Your task to perform on an android device: stop showing notifications on the lock screen Image 0: 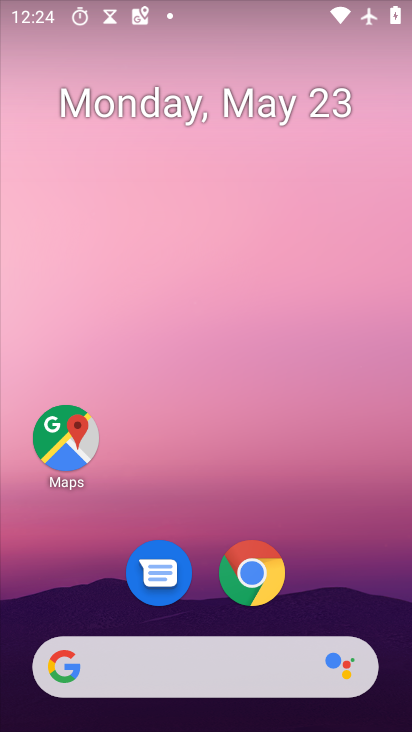
Step 0: press home button
Your task to perform on an android device: stop showing notifications on the lock screen Image 1: 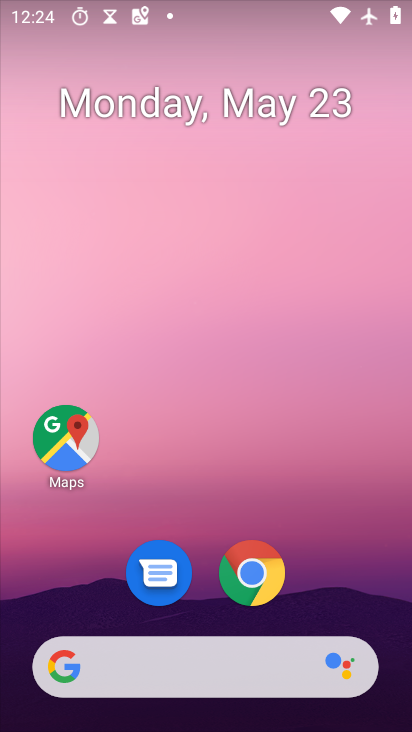
Step 1: drag from (152, 668) to (241, 165)
Your task to perform on an android device: stop showing notifications on the lock screen Image 2: 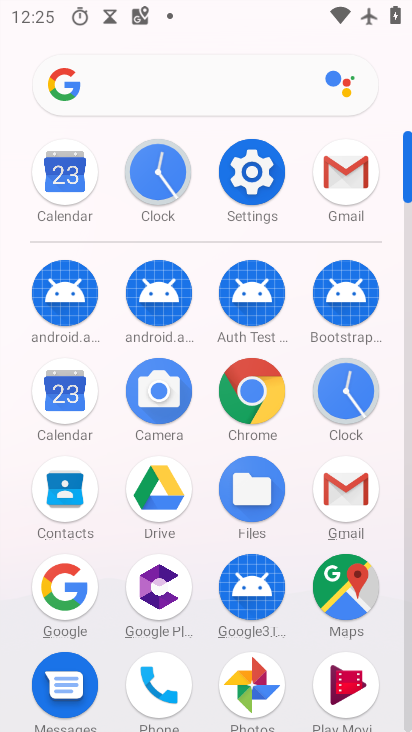
Step 2: click (253, 178)
Your task to perform on an android device: stop showing notifications on the lock screen Image 3: 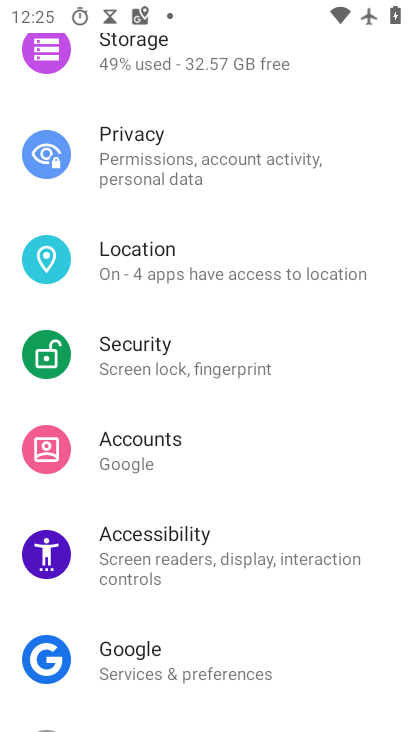
Step 3: drag from (281, 300) to (297, 645)
Your task to perform on an android device: stop showing notifications on the lock screen Image 4: 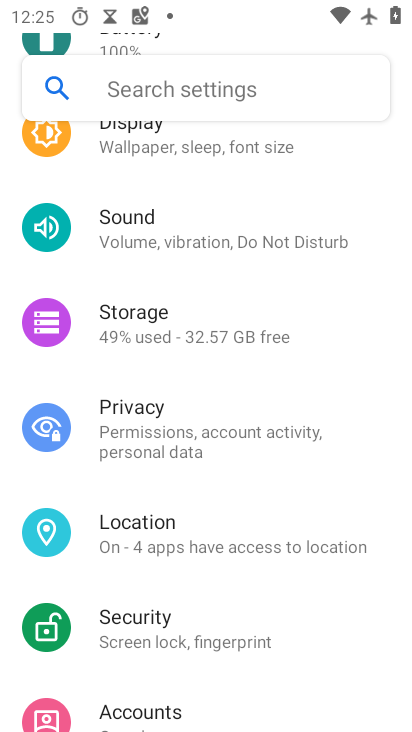
Step 4: drag from (299, 300) to (293, 649)
Your task to perform on an android device: stop showing notifications on the lock screen Image 5: 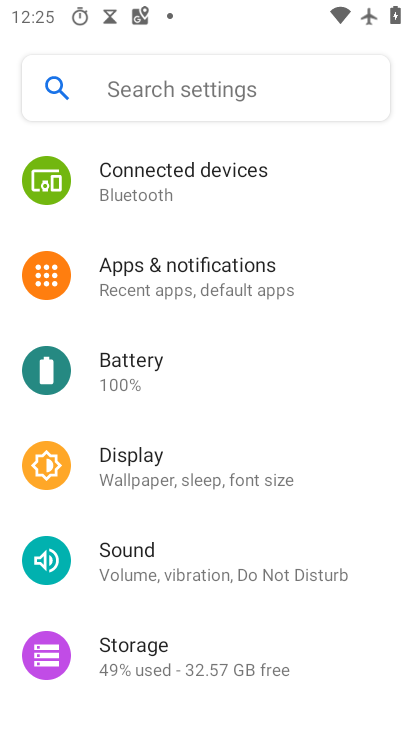
Step 5: click (200, 275)
Your task to perform on an android device: stop showing notifications on the lock screen Image 6: 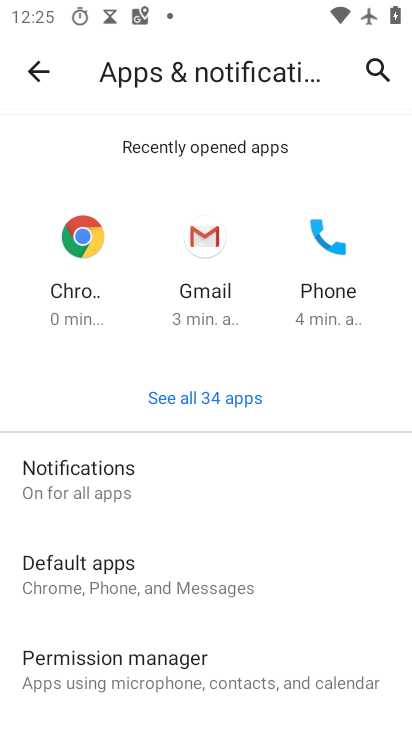
Step 6: click (108, 479)
Your task to perform on an android device: stop showing notifications on the lock screen Image 7: 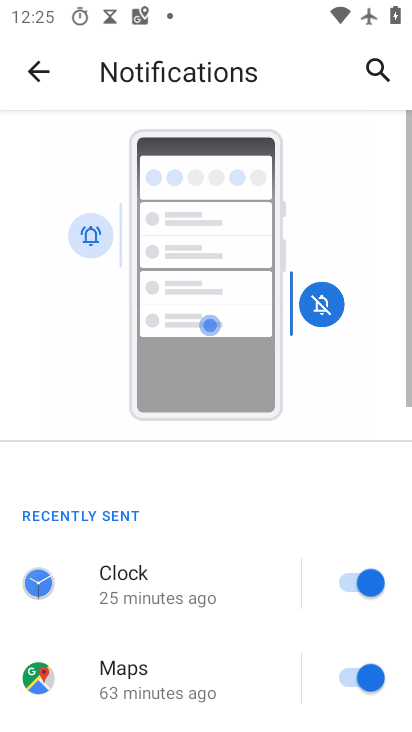
Step 7: drag from (176, 689) to (310, 140)
Your task to perform on an android device: stop showing notifications on the lock screen Image 8: 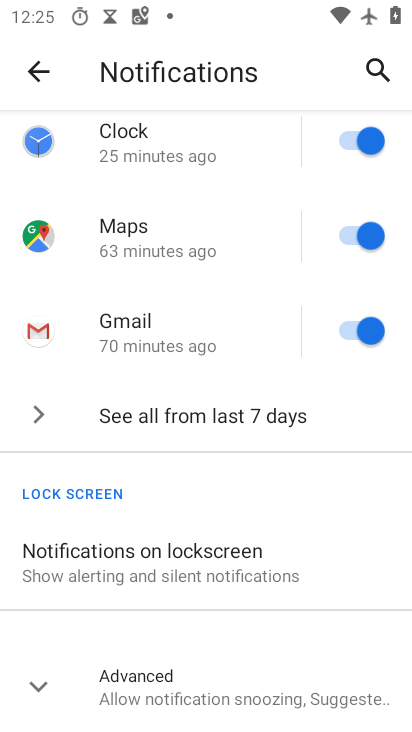
Step 8: click (152, 558)
Your task to perform on an android device: stop showing notifications on the lock screen Image 9: 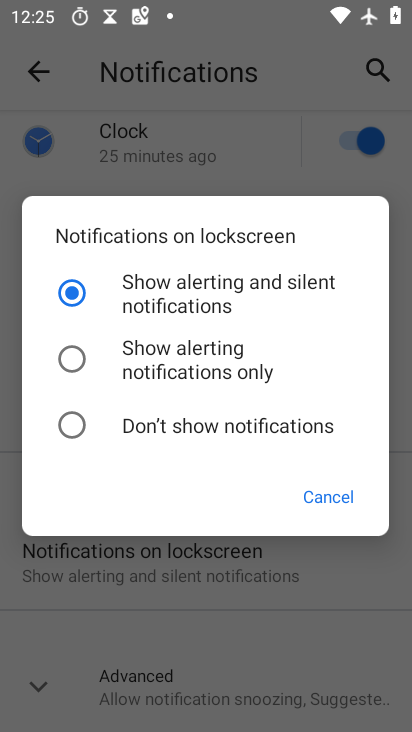
Step 9: click (76, 425)
Your task to perform on an android device: stop showing notifications on the lock screen Image 10: 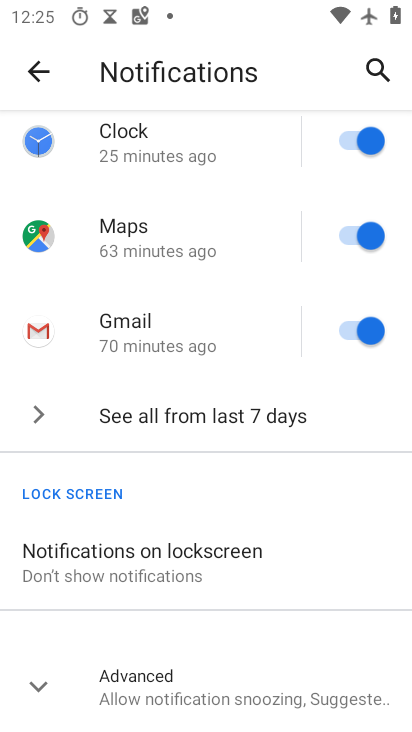
Step 10: task complete